Your task to perform on an android device: Open Google Maps Image 0: 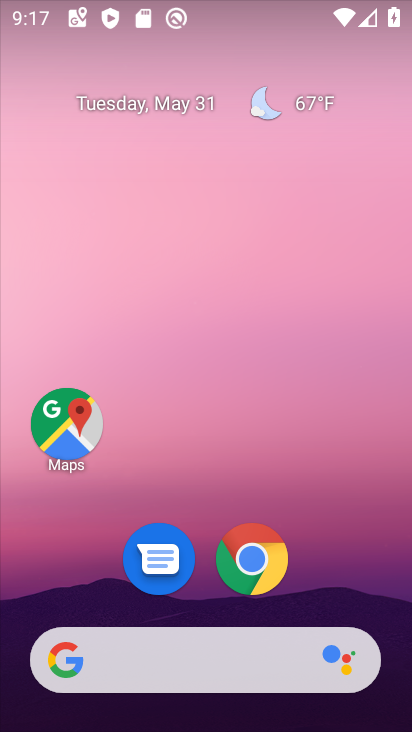
Step 0: click (67, 429)
Your task to perform on an android device: Open Google Maps Image 1: 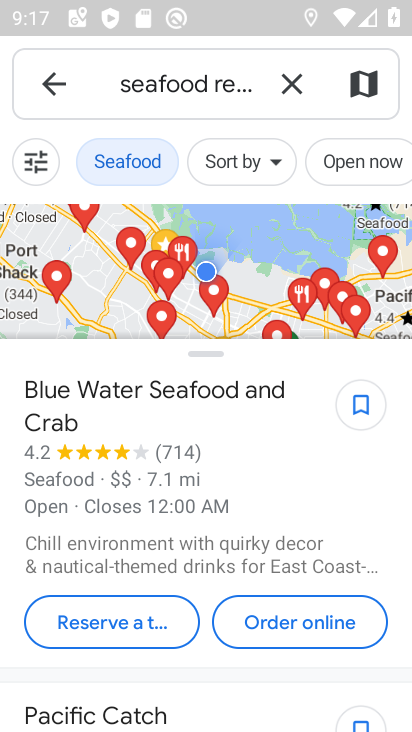
Step 1: task complete